Your task to perform on an android device: snooze an email in the gmail app Image 0: 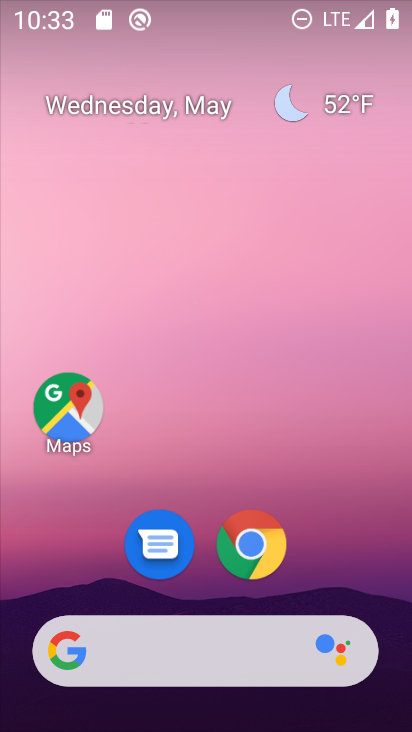
Step 0: drag from (210, 573) to (213, 288)
Your task to perform on an android device: snooze an email in the gmail app Image 1: 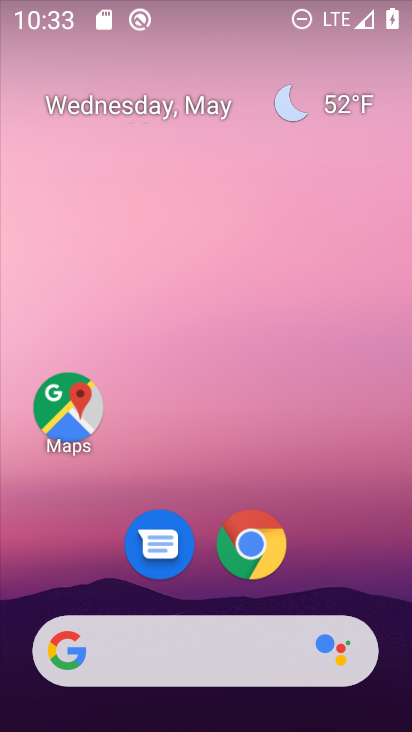
Step 1: drag from (225, 609) to (161, 118)
Your task to perform on an android device: snooze an email in the gmail app Image 2: 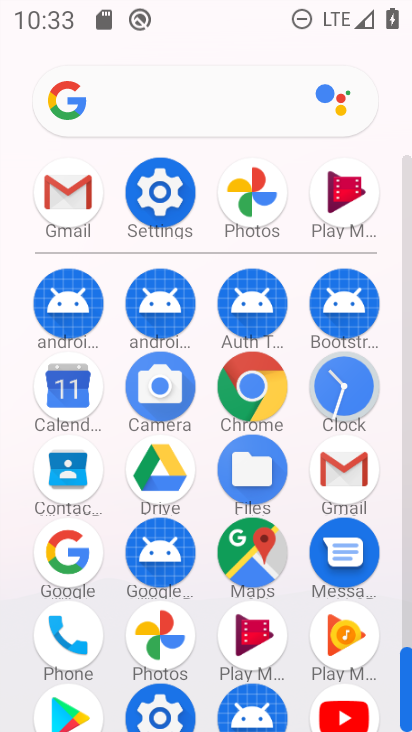
Step 2: click (77, 181)
Your task to perform on an android device: snooze an email in the gmail app Image 3: 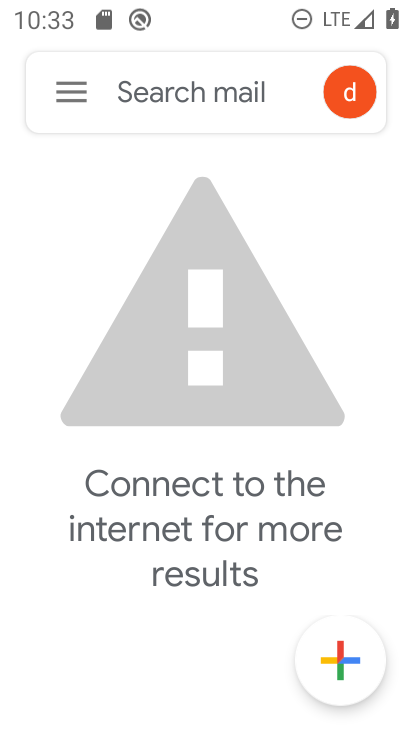
Step 3: click (63, 74)
Your task to perform on an android device: snooze an email in the gmail app Image 4: 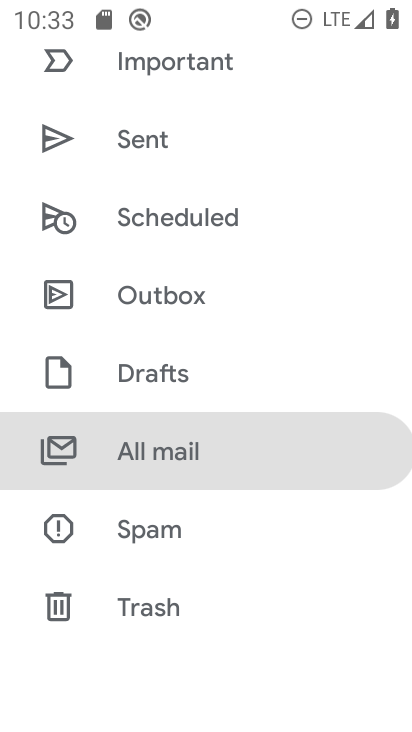
Step 4: click (179, 484)
Your task to perform on an android device: snooze an email in the gmail app Image 5: 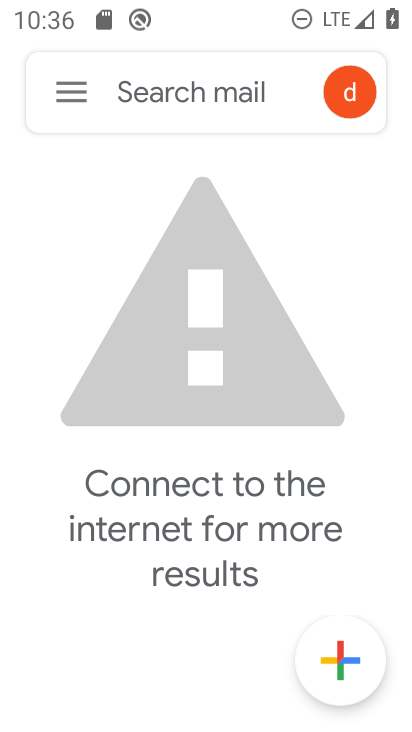
Step 5: task complete